Your task to perform on an android device: toggle wifi Image 0: 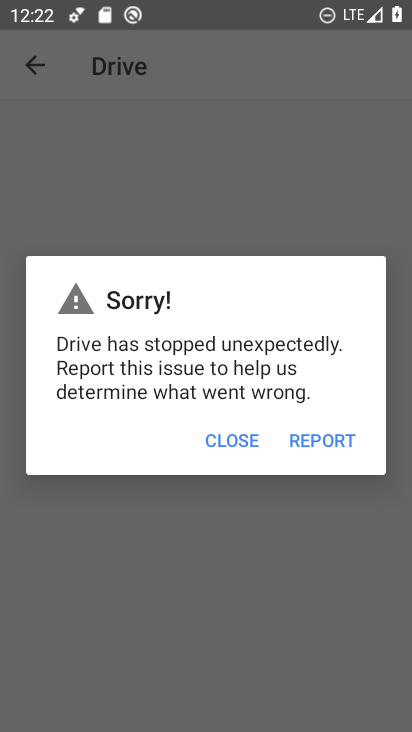
Step 0: press home button
Your task to perform on an android device: toggle wifi Image 1: 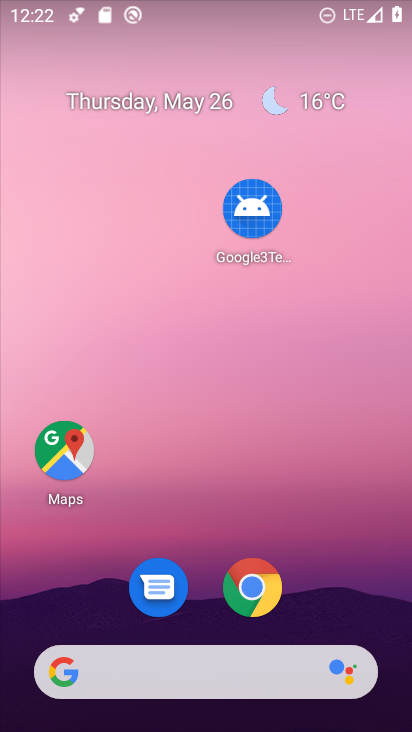
Step 1: drag from (172, 655) to (1, 263)
Your task to perform on an android device: toggle wifi Image 2: 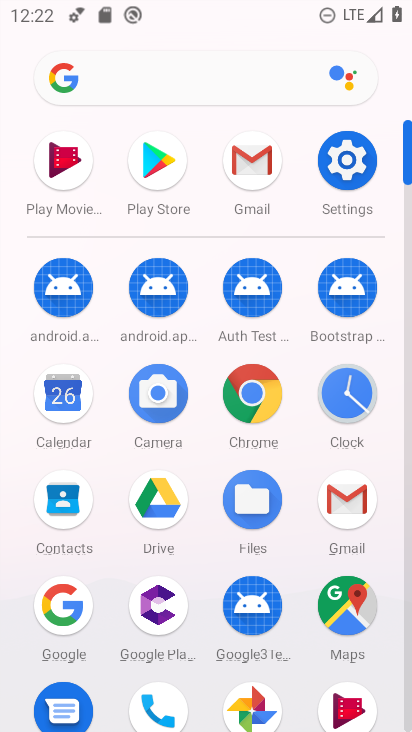
Step 2: click (340, 178)
Your task to perform on an android device: toggle wifi Image 3: 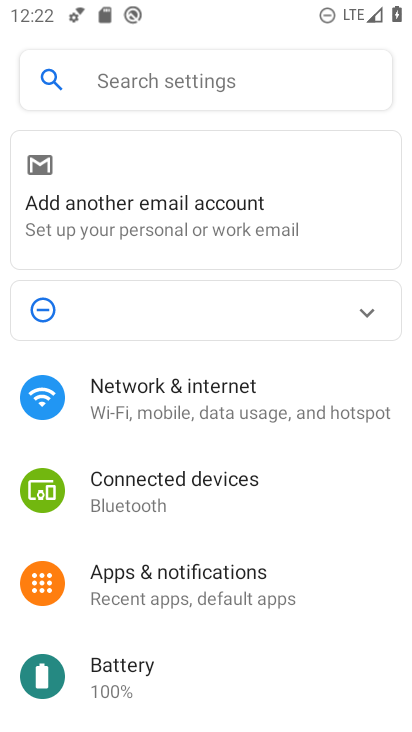
Step 3: click (206, 391)
Your task to perform on an android device: toggle wifi Image 4: 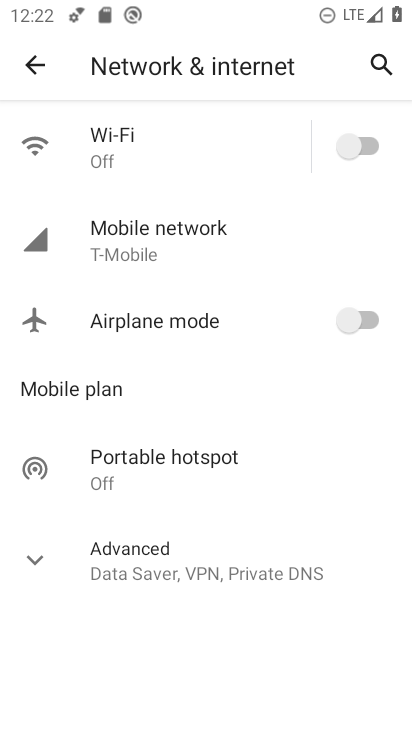
Step 4: click (347, 142)
Your task to perform on an android device: toggle wifi Image 5: 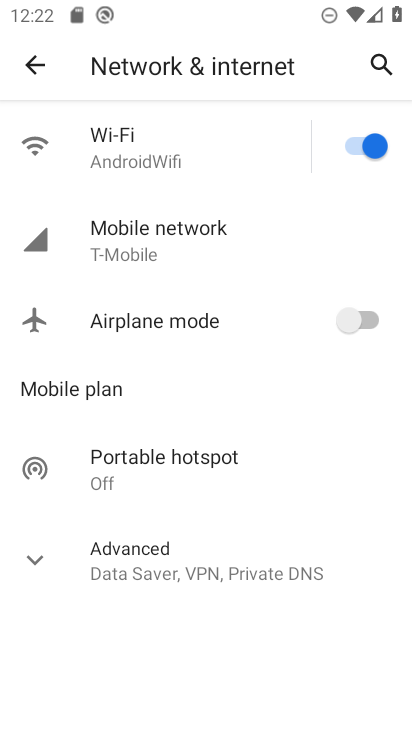
Step 5: task complete